Your task to perform on an android device: Open calendar and show me the fourth week of next month Image 0: 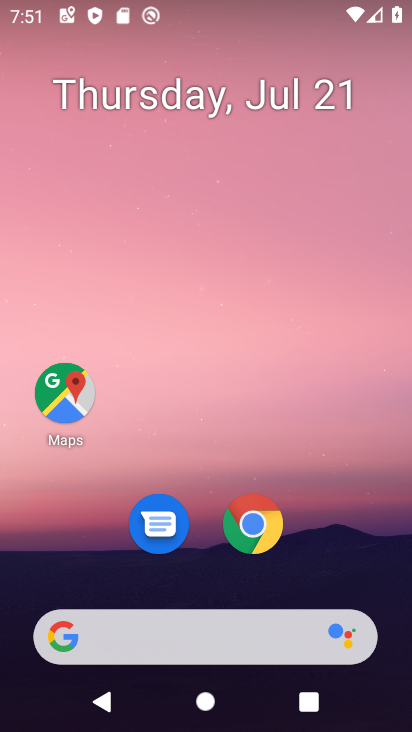
Step 0: press home button
Your task to perform on an android device: Open calendar and show me the fourth week of next month Image 1: 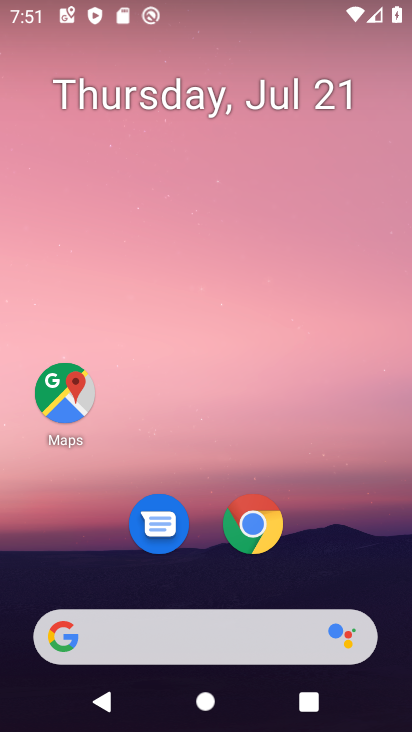
Step 1: drag from (160, 637) to (288, 218)
Your task to perform on an android device: Open calendar and show me the fourth week of next month Image 2: 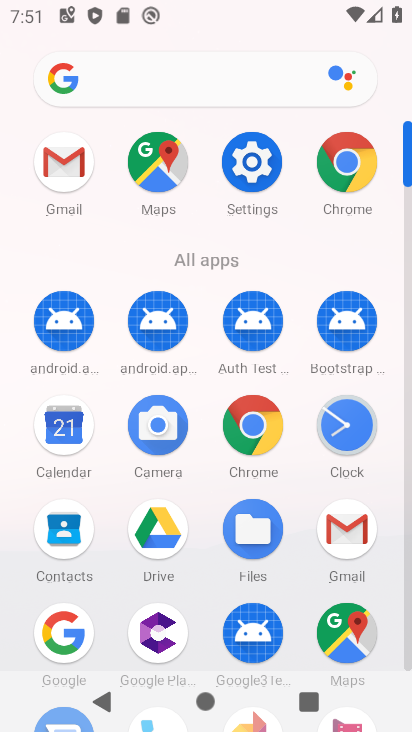
Step 2: click (64, 433)
Your task to perform on an android device: Open calendar and show me the fourth week of next month Image 3: 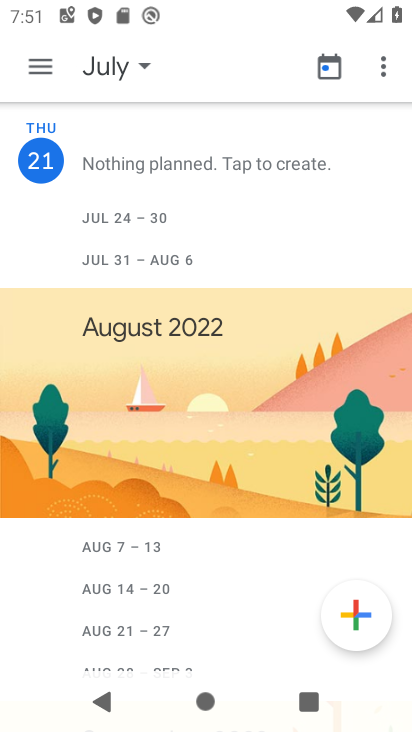
Step 3: click (117, 64)
Your task to perform on an android device: Open calendar and show me the fourth week of next month Image 4: 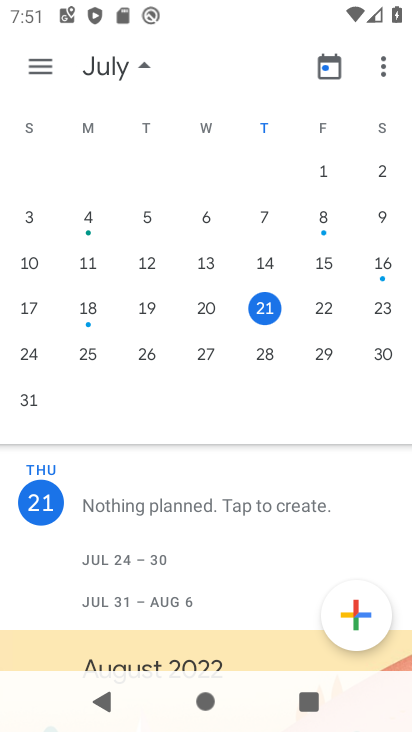
Step 4: drag from (376, 246) to (16, 264)
Your task to perform on an android device: Open calendar and show me the fourth week of next month Image 5: 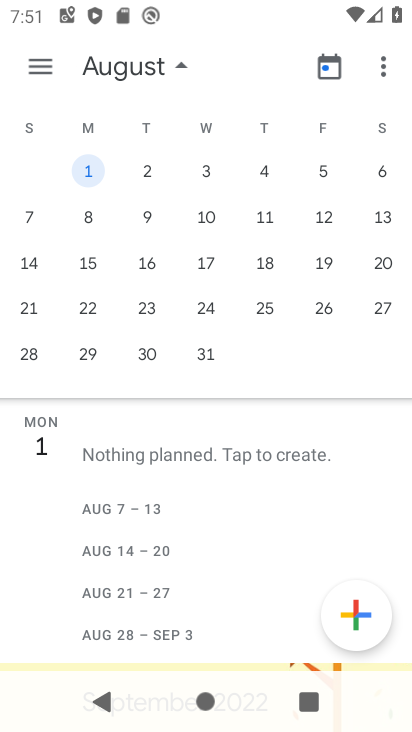
Step 5: click (32, 312)
Your task to perform on an android device: Open calendar and show me the fourth week of next month Image 6: 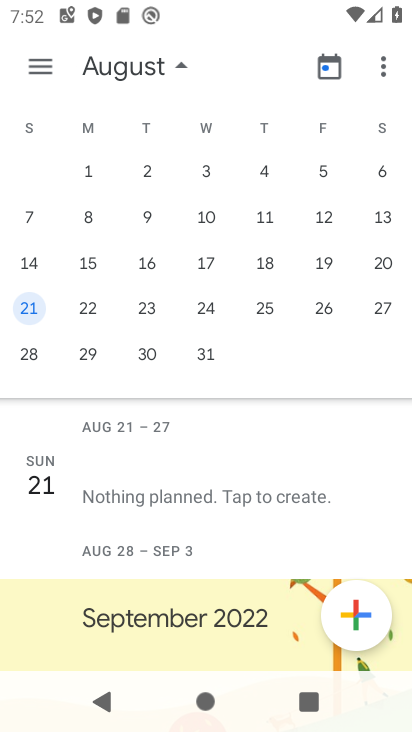
Step 6: click (38, 56)
Your task to perform on an android device: Open calendar and show me the fourth week of next month Image 7: 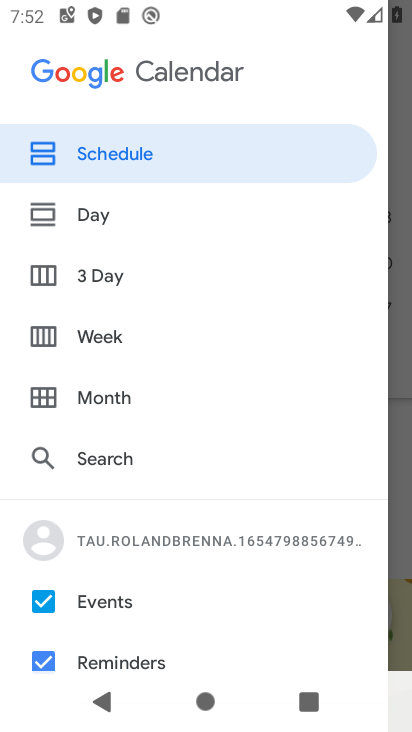
Step 7: click (99, 342)
Your task to perform on an android device: Open calendar and show me the fourth week of next month Image 8: 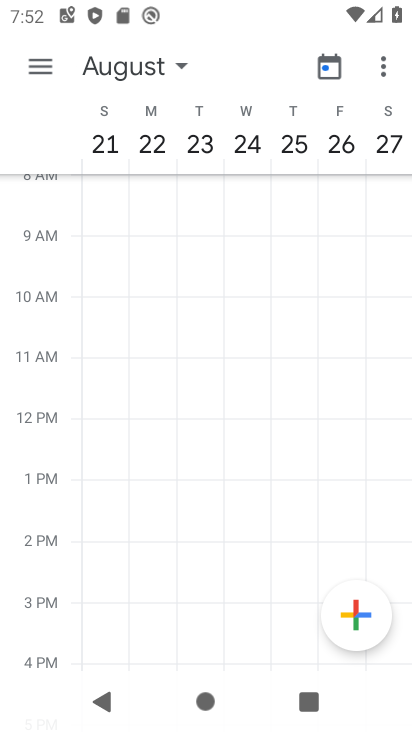
Step 8: task complete